Your task to perform on an android device: Open Youtube and go to the subscriptions tab Image 0: 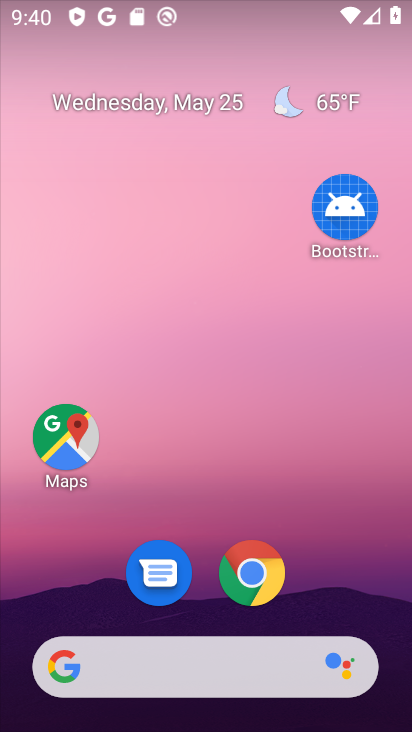
Step 0: drag from (340, 578) to (305, 115)
Your task to perform on an android device: Open Youtube and go to the subscriptions tab Image 1: 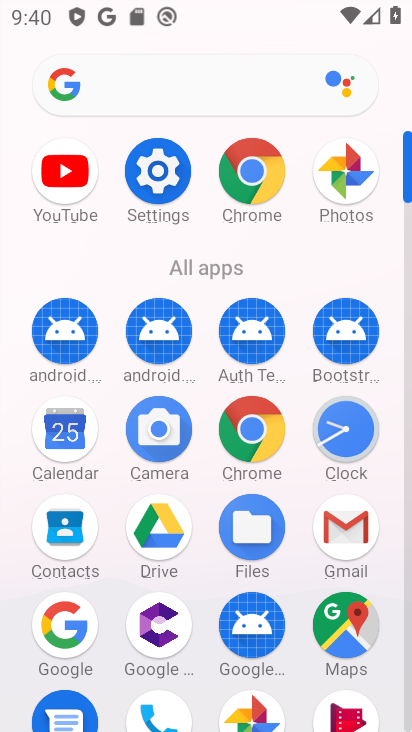
Step 1: click (48, 180)
Your task to perform on an android device: Open Youtube and go to the subscriptions tab Image 2: 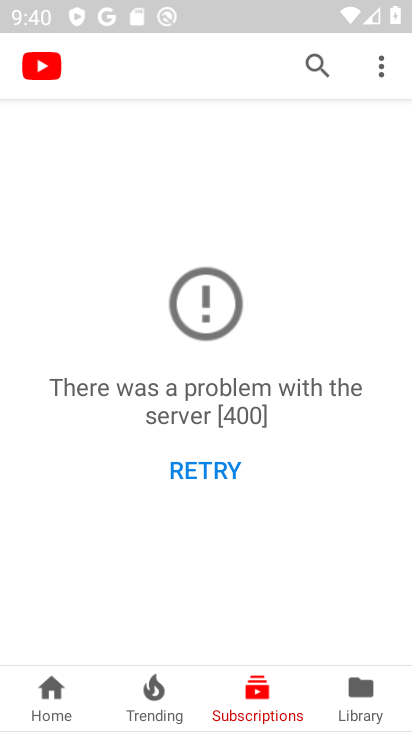
Step 2: task complete